Your task to perform on an android device: Search for the best rated vacuums on Target Image 0: 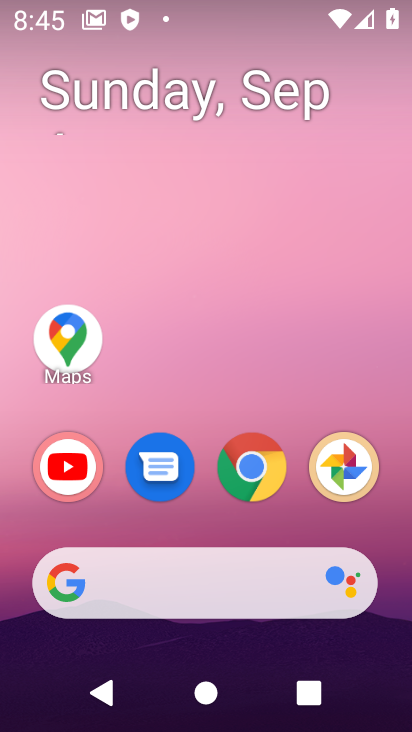
Step 0: click (269, 456)
Your task to perform on an android device: Search for the best rated vacuums on Target Image 1: 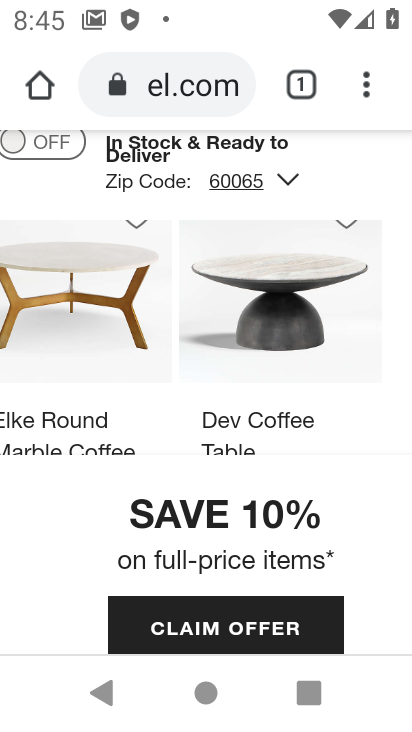
Step 1: click (212, 80)
Your task to perform on an android device: Search for the best rated vacuums on Target Image 2: 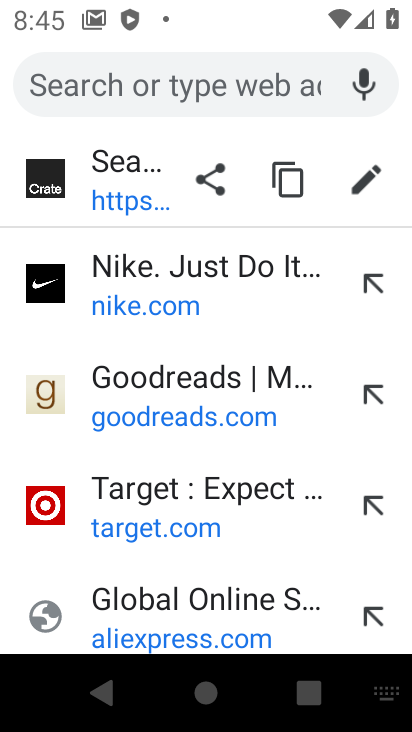
Step 2: type "target"
Your task to perform on an android device: Search for the best rated vacuums on Target Image 3: 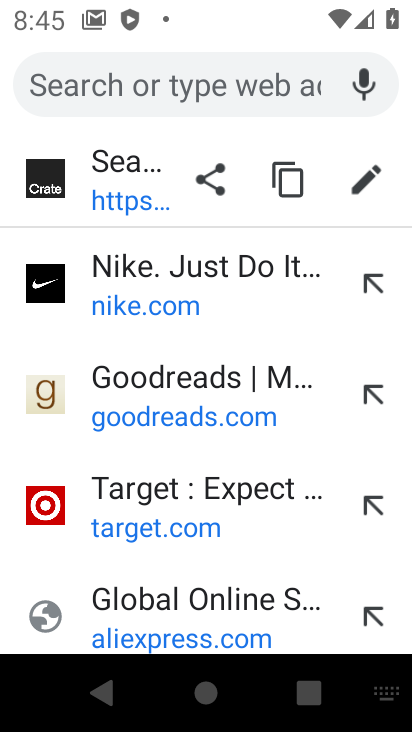
Step 3: click (126, 517)
Your task to perform on an android device: Search for the best rated vacuums on Target Image 4: 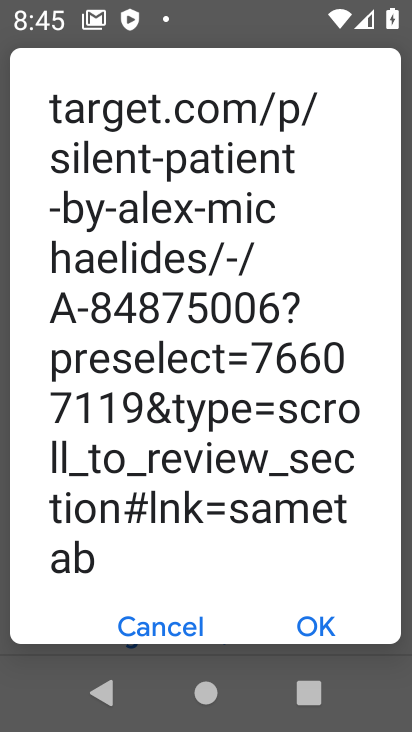
Step 4: click (134, 616)
Your task to perform on an android device: Search for the best rated vacuums on Target Image 5: 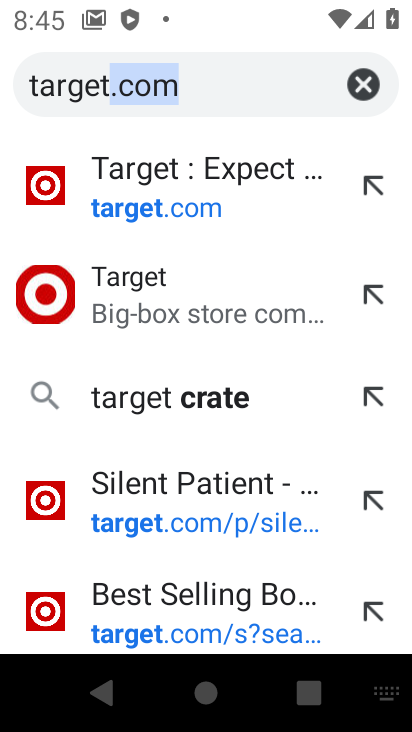
Step 5: click (178, 189)
Your task to perform on an android device: Search for the best rated vacuums on Target Image 6: 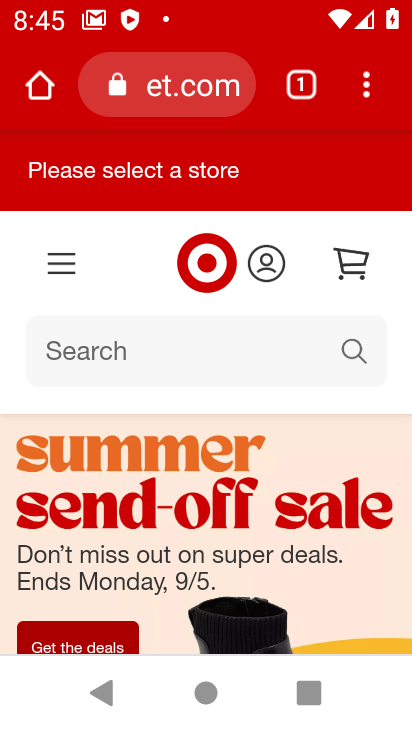
Step 6: click (227, 345)
Your task to perform on an android device: Search for the best rated vacuums on Target Image 7: 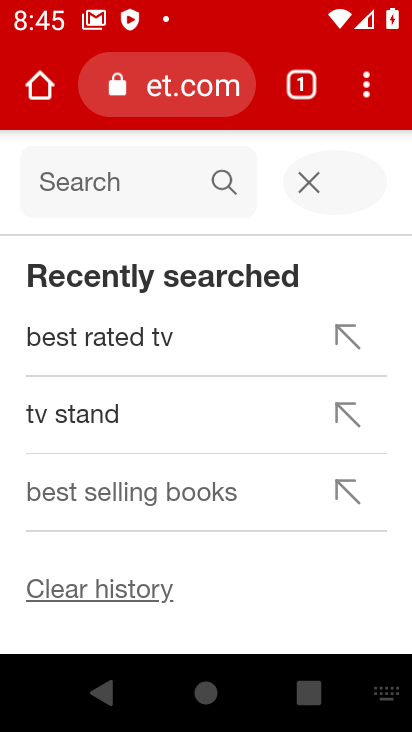
Step 7: type "vacuums"
Your task to perform on an android device: Search for the best rated vacuums on Target Image 8: 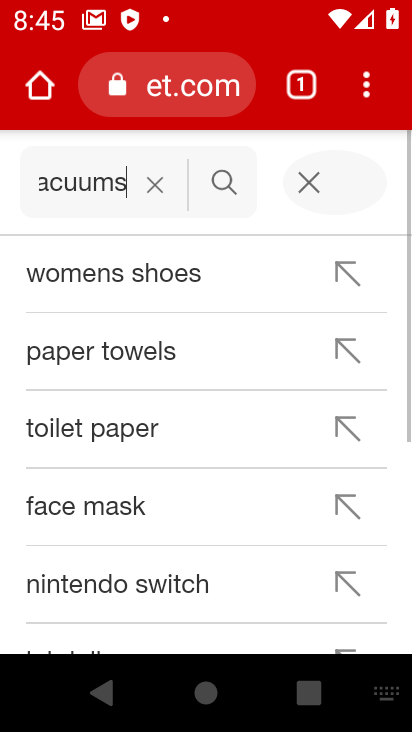
Step 8: type ""
Your task to perform on an android device: Search for the best rated vacuums on Target Image 9: 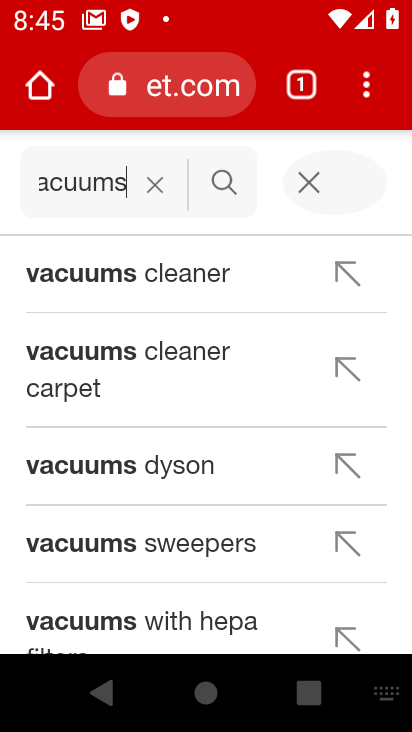
Step 9: click (136, 274)
Your task to perform on an android device: Search for the best rated vacuums on Target Image 10: 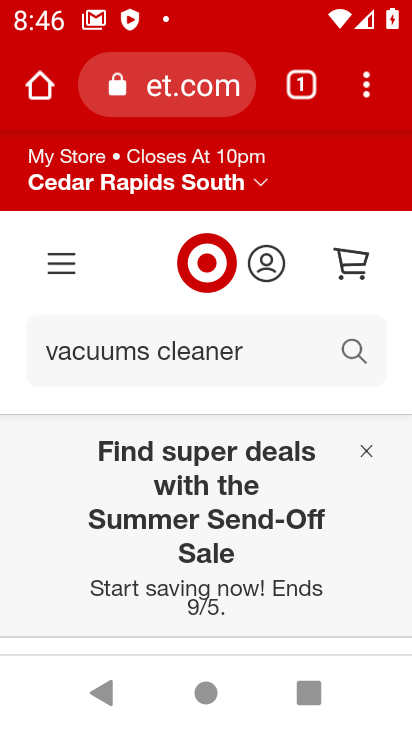
Step 10: drag from (376, 558) to (404, 230)
Your task to perform on an android device: Search for the best rated vacuums on Target Image 11: 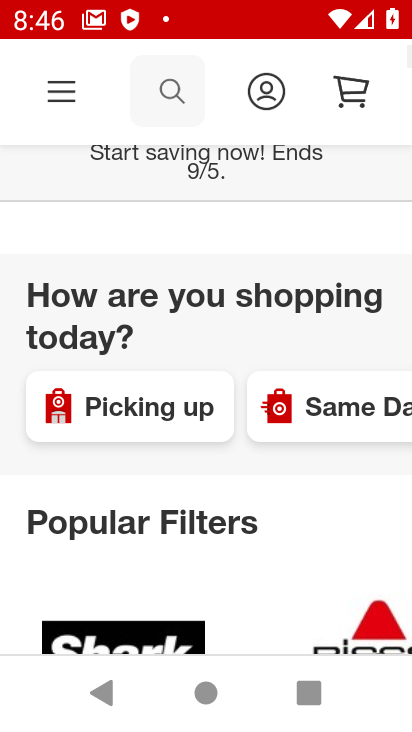
Step 11: drag from (366, 502) to (362, 218)
Your task to perform on an android device: Search for the best rated vacuums on Target Image 12: 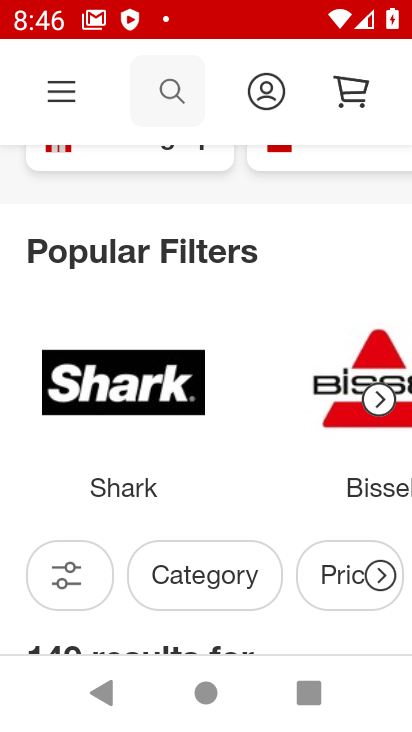
Step 12: drag from (382, 629) to (379, 188)
Your task to perform on an android device: Search for the best rated vacuums on Target Image 13: 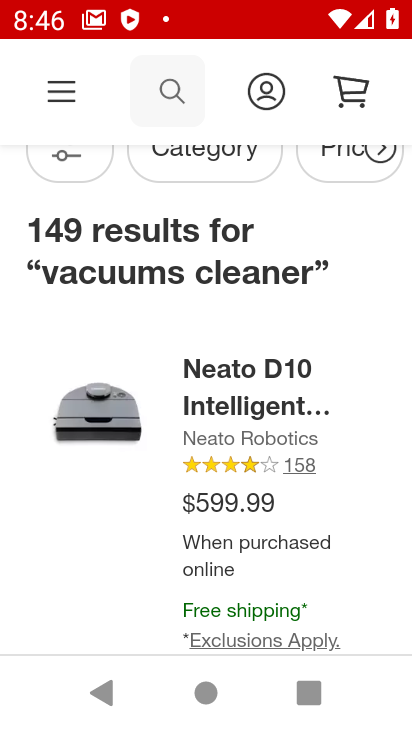
Step 13: drag from (411, 566) to (387, 234)
Your task to perform on an android device: Search for the best rated vacuums on Target Image 14: 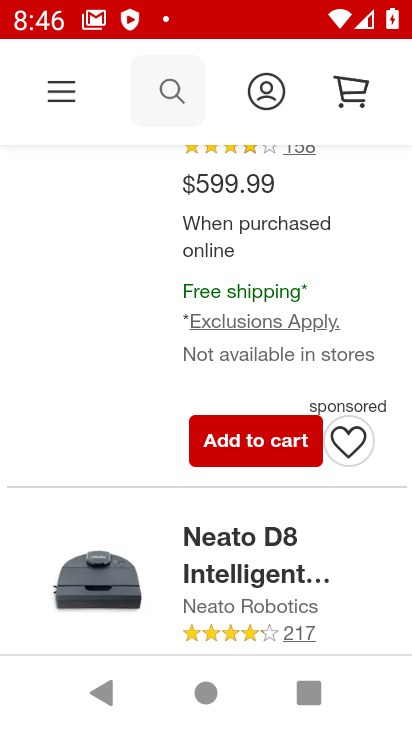
Step 14: drag from (373, 603) to (347, 283)
Your task to perform on an android device: Search for the best rated vacuums on Target Image 15: 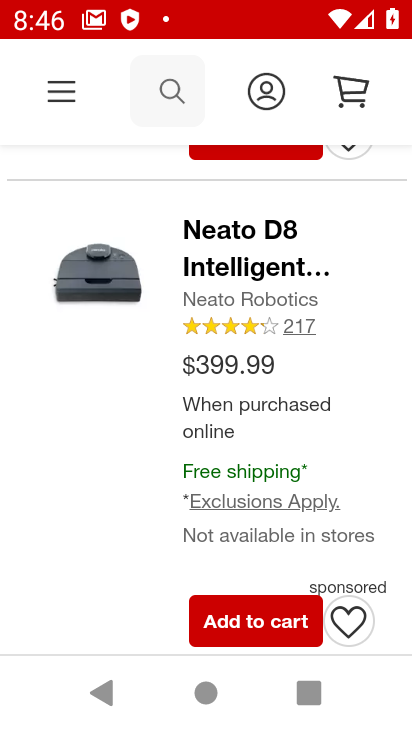
Step 15: drag from (376, 476) to (340, 195)
Your task to perform on an android device: Search for the best rated vacuums on Target Image 16: 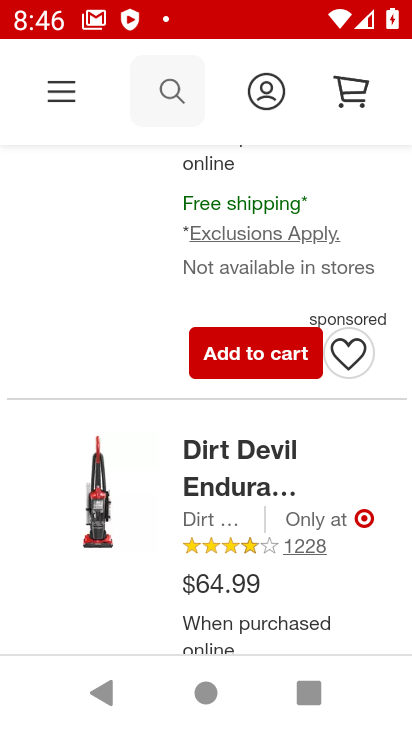
Step 16: drag from (351, 583) to (344, 234)
Your task to perform on an android device: Search for the best rated vacuums on Target Image 17: 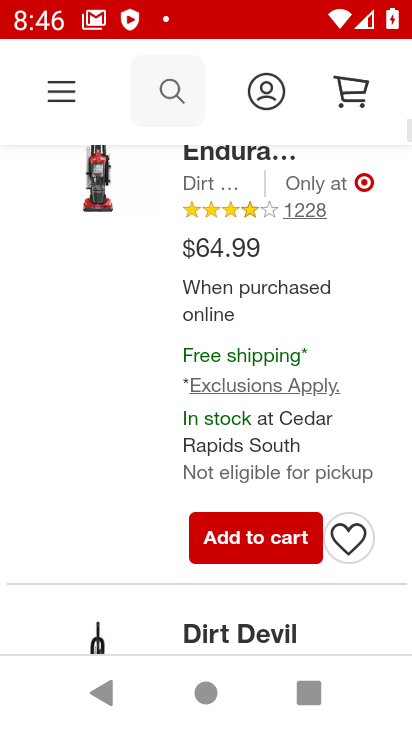
Step 17: drag from (374, 440) to (393, 112)
Your task to perform on an android device: Search for the best rated vacuums on Target Image 18: 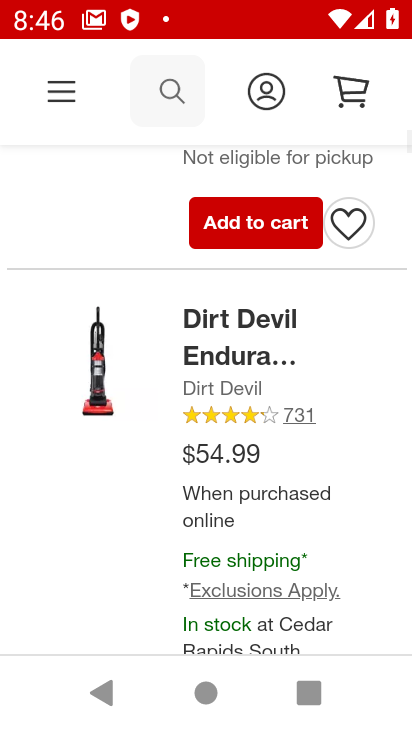
Step 18: drag from (340, 599) to (397, 302)
Your task to perform on an android device: Search for the best rated vacuums on Target Image 19: 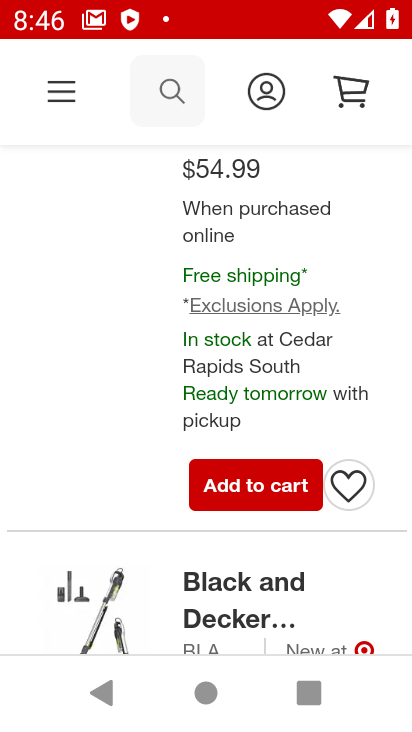
Step 19: drag from (389, 567) to (389, 191)
Your task to perform on an android device: Search for the best rated vacuums on Target Image 20: 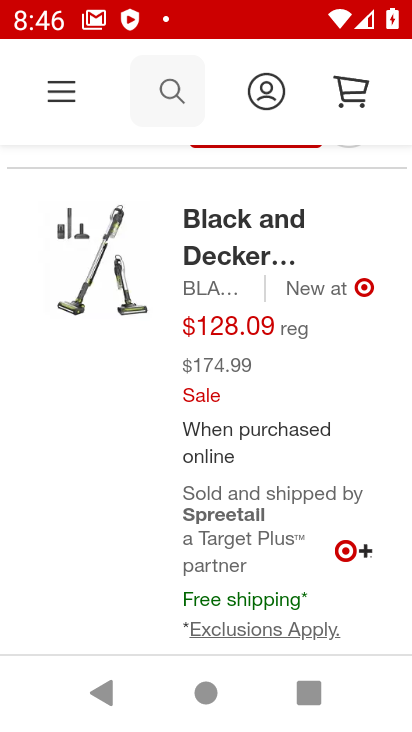
Step 20: drag from (379, 578) to (392, 376)
Your task to perform on an android device: Search for the best rated vacuums on Target Image 21: 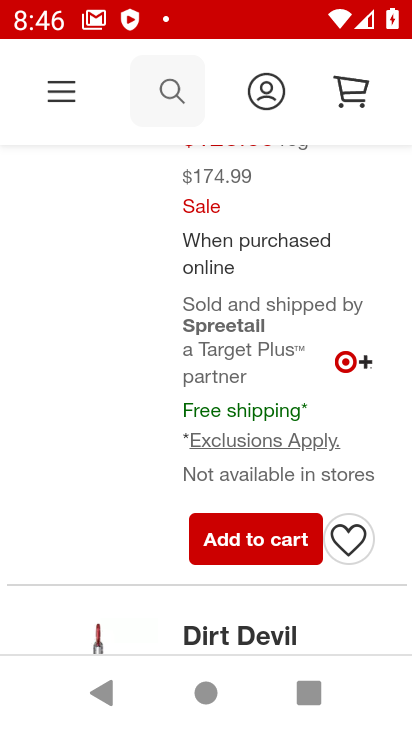
Step 21: drag from (361, 585) to (399, 218)
Your task to perform on an android device: Search for the best rated vacuums on Target Image 22: 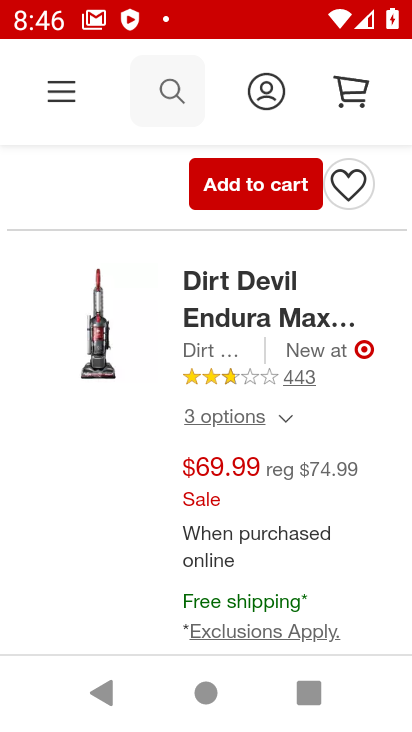
Step 22: drag from (368, 523) to (382, 239)
Your task to perform on an android device: Search for the best rated vacuums on Target Image 23: 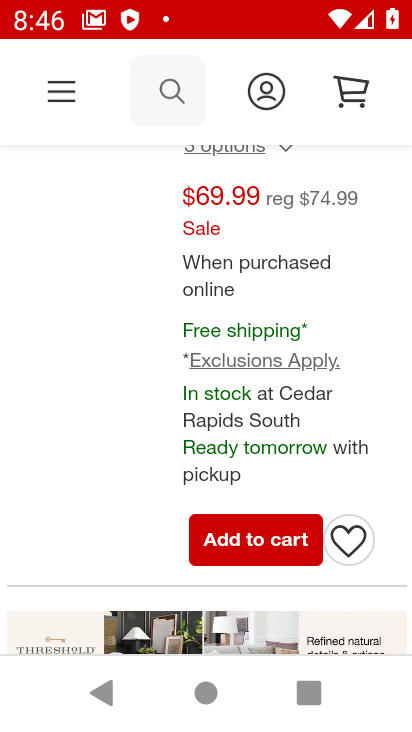
Step 23: drag from (378, 549) to (403, 314)
Your task to perform on an android device: Search for the best rated vacuums on Target Image 24: 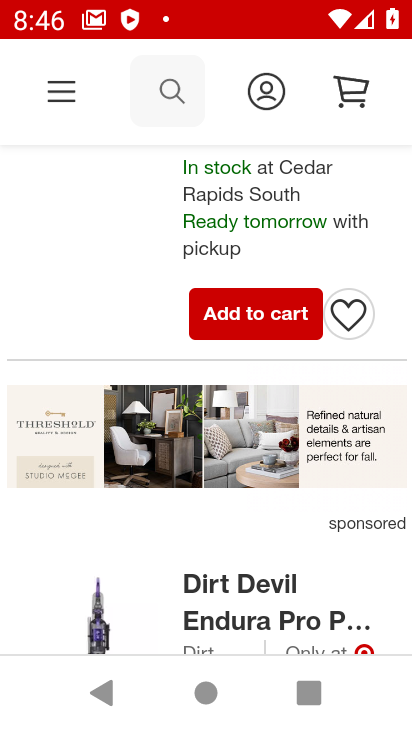
Step 24: drag from (369, 590) to (391, 158)
Your task to perform on an android device: Search for the best rated vacuums on Target Image 25: 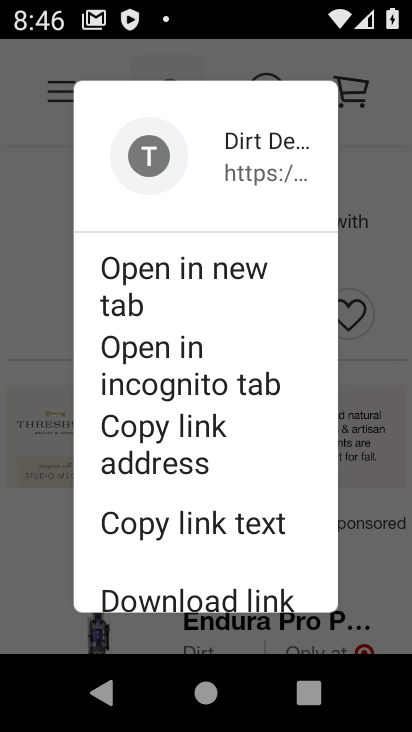
Step 25: drag from (398, 533) to (351, 135)
Your task to perform on an android device: Search for the best rated vacuums on Target Image 26: 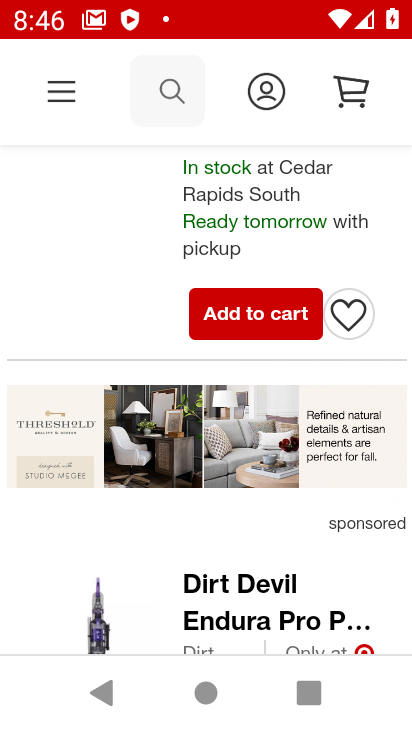
Step 26: drag from (353, 570) to (363, 273)
Your task to perform on an android device: Search for the best rated vacuums on Target Image 27: 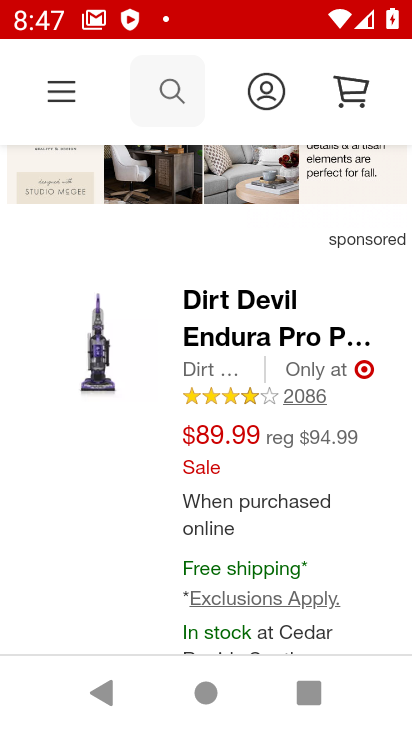
Step 27: drag from (387, 391) to (408, 306)
Your task to perform on an android device: Search for the best rated vacuums on Target Image 28: 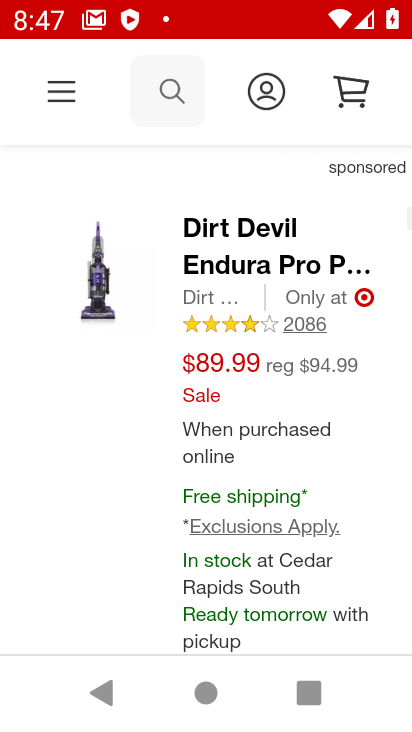
Step 28: drag from (380, 494) to (389, 202)
Your task to perform on an android device: Search for the best rated vacuums on Target Image 29: 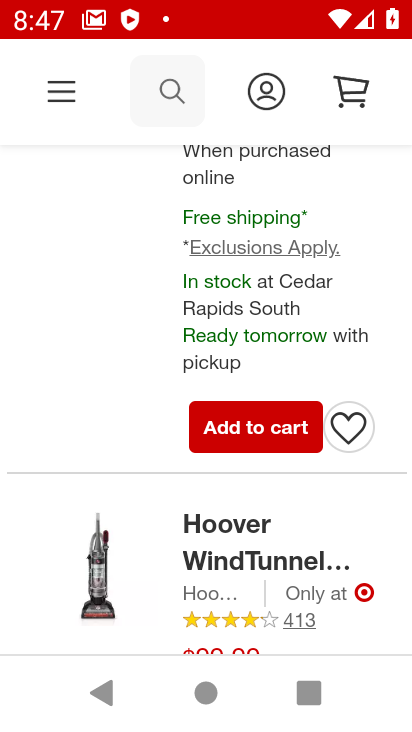
Step 29: drag from (383, 480) to (411, 176)
Your task to perform on an android device: Search for the best rated vacuums on Target Image 30: 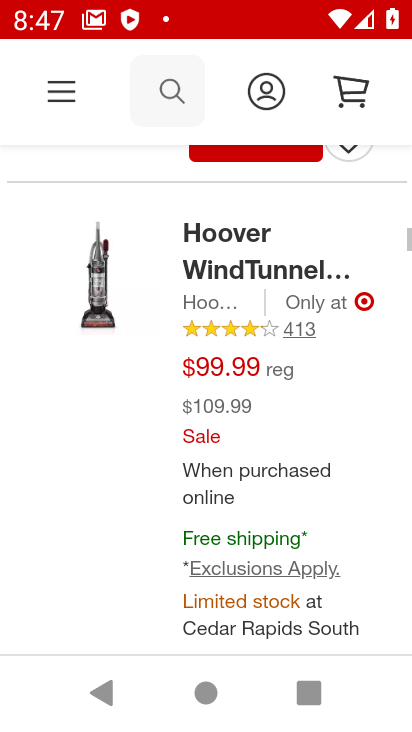
Step 30: drag from (368, 507) to (381, 178)
Your task to perform on an android device: Search for the best rated vacuums on Target Image 31: 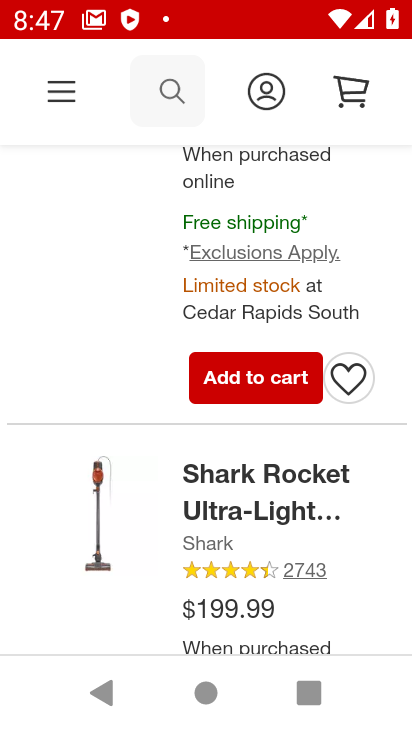
Step 31: drag from (352, 508) to (403, 265)
Your task to perform on an android device: Search for the best rated vacuums on Target Image 32: 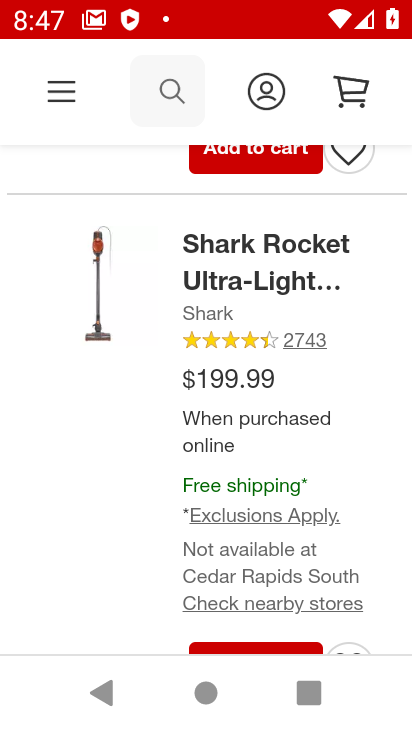
Step 32: click (228, 247)
Your task to perform on an android device: Search for the best rated vacuums on Target Image 33: 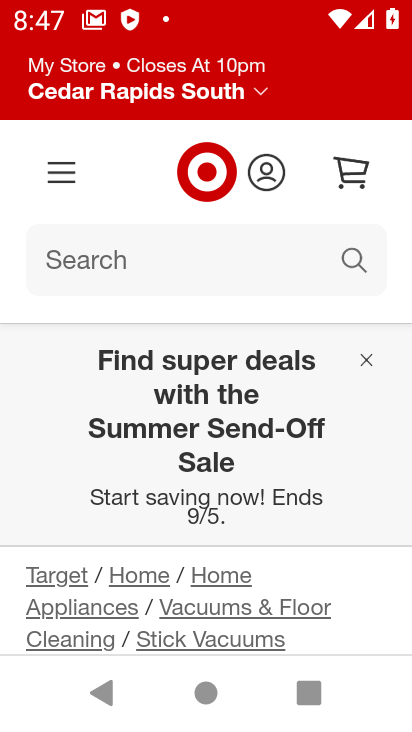
Step 33: click (363, 362)
Your task to perform on an android device: Search for the best rated vacuums on Target Image 34: 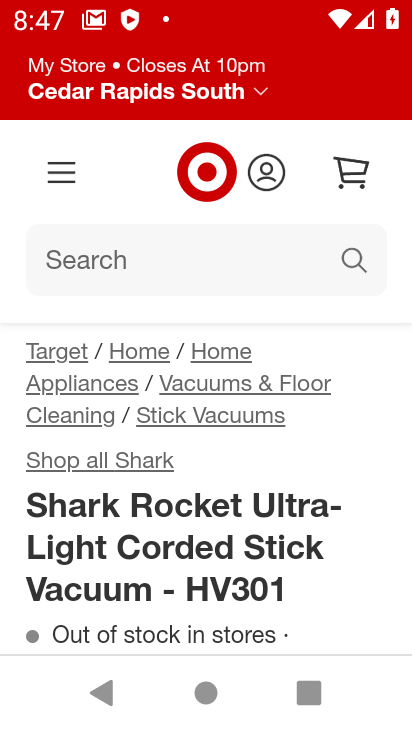
Step 34: drag from (371, 525) to (379, 252)
Your task to perform on an android device: Search for the best rated vacuums on Target Image 35: 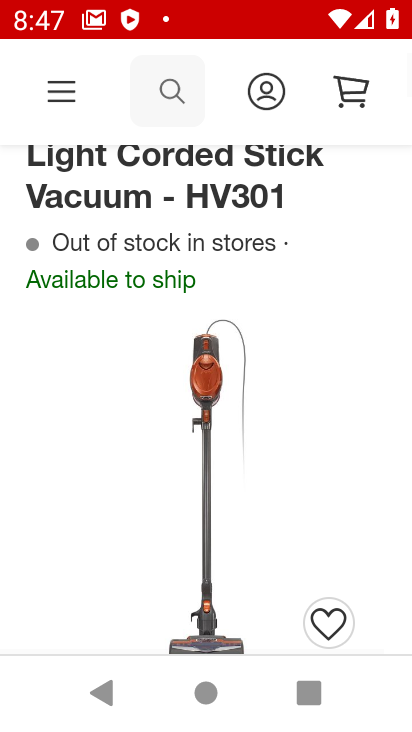
Step 35: drag from (381, 464) to (310, 243)
Your task to perform on an android device: Search for the best rated vacuums on Target Image 36: 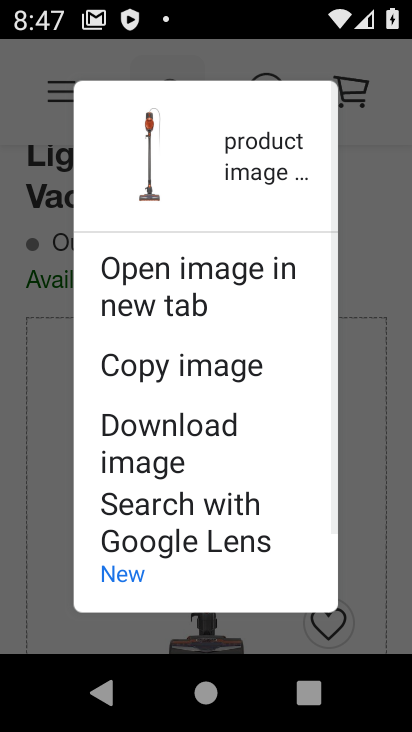
Step 36: click (394, 528)
Your task to perform on an android device: Search for the best rated vacuums on Target Image 37: 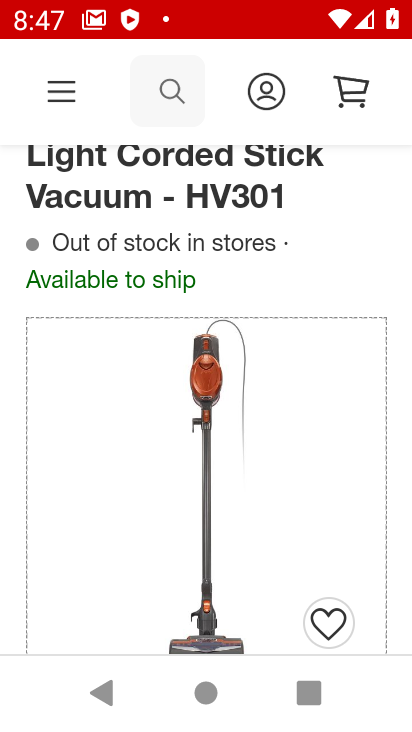
Step 37: task complete